Your task to perform on an android device: delete the emails in spam in the gmail app Image 0: 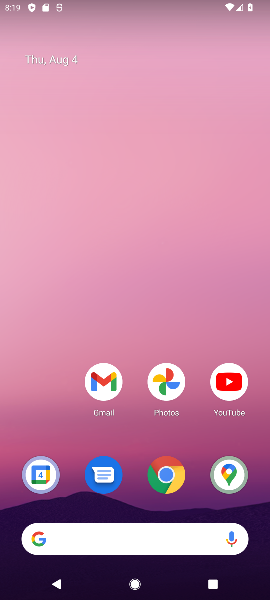
Step 0: drag from (173, 503) to (247, 88)
Your task to perform on an android device: delete the emails in spam in the gmail app Image 1: 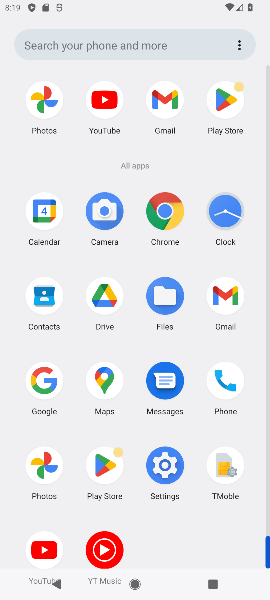
Step 1: drag from (141, 471) to (199, 119)
Your task to perform on an android device: delete the emails in spam in the gmail app Image 2: 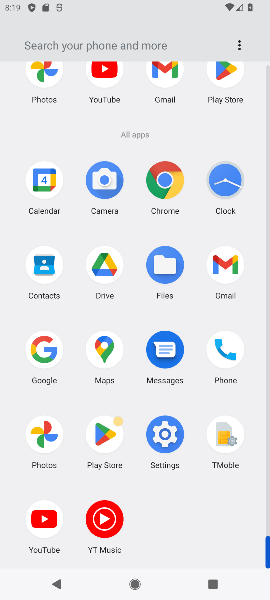
Step 2: click (223, 258)
Your task to perform on an android device: delete the emails in spam in the gmail app Image 3: 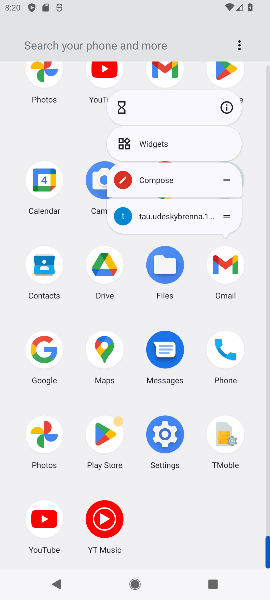
Step 3: click (227, 103)
Your task to perform on an android device: delete the emails in spam in the gmail app Image 4: 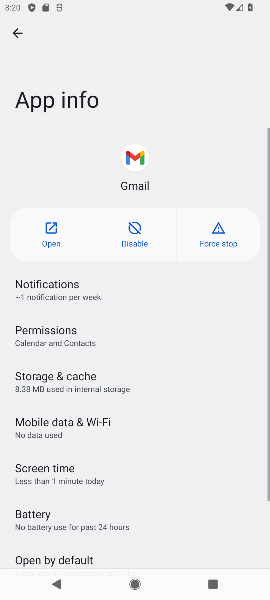
Step 4: click (49, 229)
Your task to perform on an android device: delete the emails in spam in the gmail app Image 5: 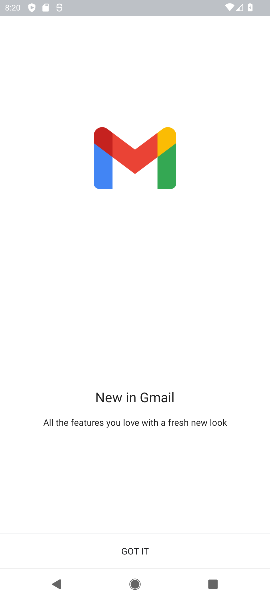
Step 5: click (143, 555)
Your task to perform on an android device: delete the emails in spam in the gmail app Image 6: 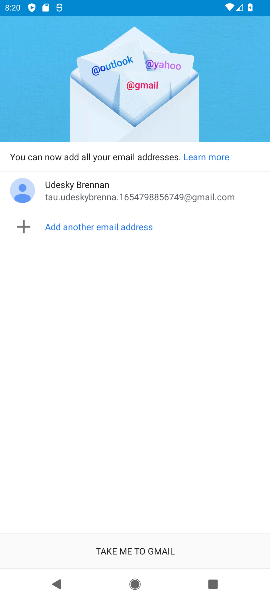
Step 6: click (141, 554)
Your task to perform on an android device: delete the emails in spam in the gmail app Image 7: 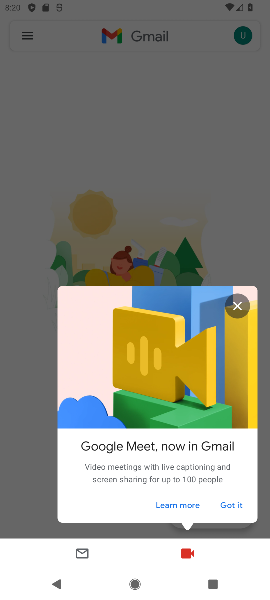
Step 7: drag from (121, 509) to (162, 220)
Your task to perform on an android device: delete the emails in spam in the gmail app Image 8: 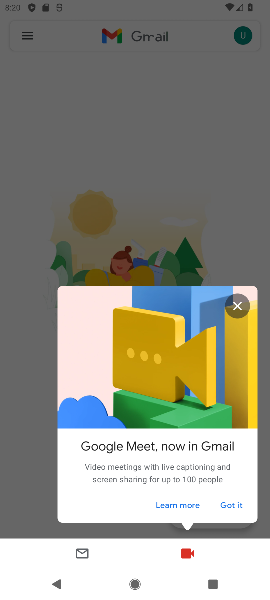
Step 8: click (233, 505)
Your task to perform on an android device: delete the emails in spam in the gmail app Image 9: 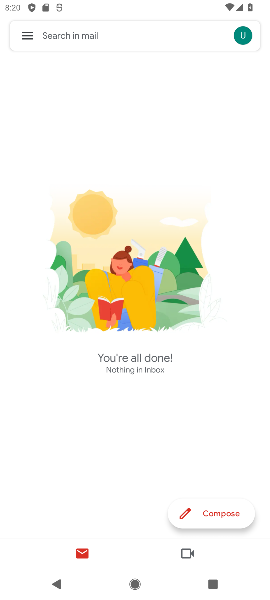
Step 9: drag from (101, 435) to (157, 246)
Your task to perform on an android device: delete the emails in spam in the gmail app Image 10: 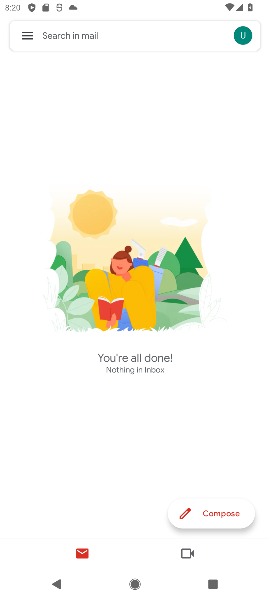
Step 10: click (21, 35)
Your task to perform on an android device: delete the emails in spam in the gmail app Image 11: 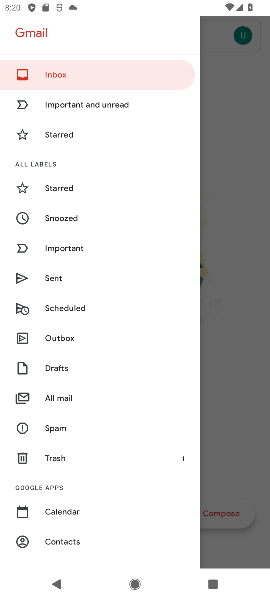
Step 11: click (81, 58)
Your task to perform on an android device: delete the emails in spam in the gmail app Image 12: 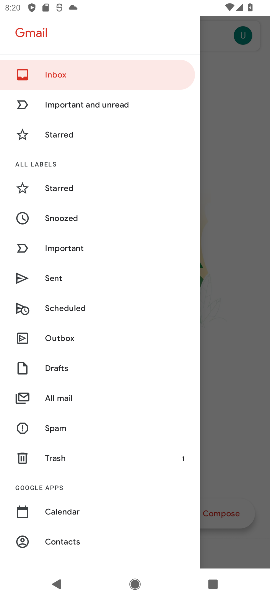
Step 12: click (60, 67)
Your task to perform on an android device: delete the emails in spam in the gmail app Image 13: 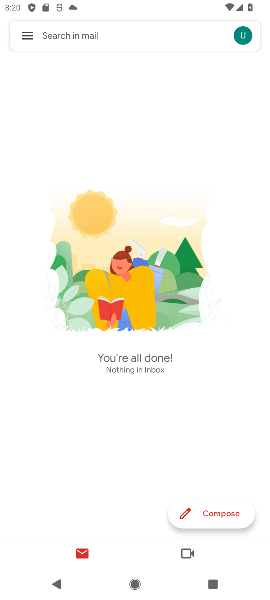
Step 13: click (234, 200)
Your task to perform on an android device: delete the emails in spam in the gmail app Image 14: 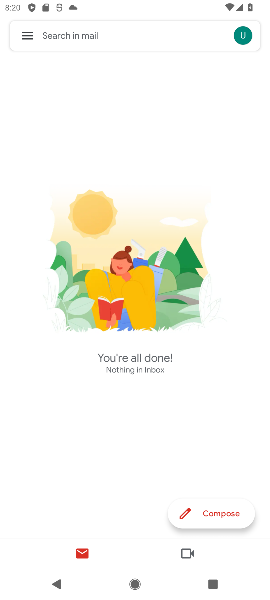
Step 14: drag from (167, 368) to (168, 227)
Your task to perform on an android device: delete the emails in spam in the gmail app Image 15: 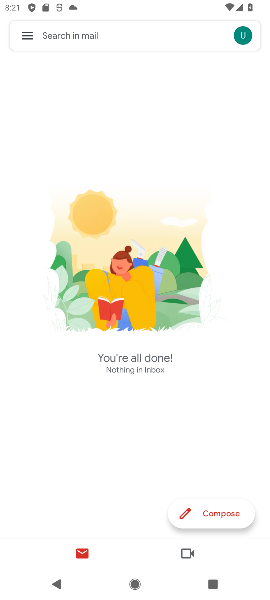
Step 15: click (35, 34)
Your task to perform on an android device: delete the emails in spam in the gmail app Image 16: 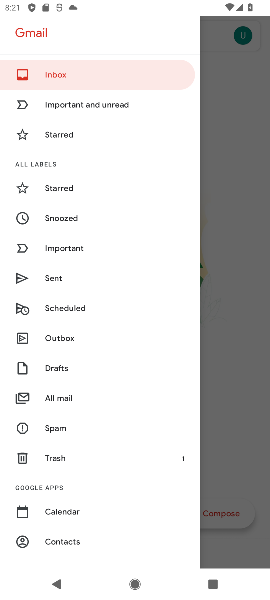
Step 16: click (68, 421)
Your task to perform on an android device: delete the emails in spam in the gmail app Image 17: 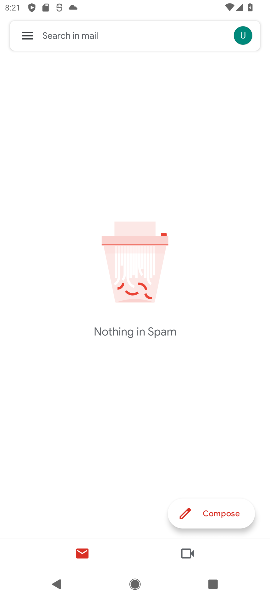
Step 17: drag from (132, 473) to (135, 292)
Your task to perform on an android device: delete the emails in spam in the gmail app Image 18: 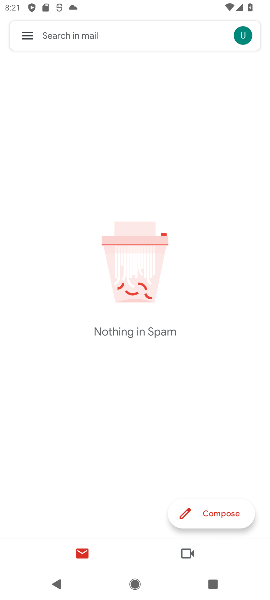
Step 18: click (20, 37)
Your task to perform on an android device: delete the emails in spam in the gmail app Image 19: 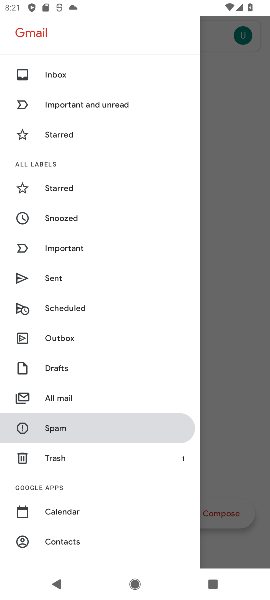
Step 19: click (42, 428)
Your task to perform on an android device: delete the emails in spam in the gmail app Image 20: 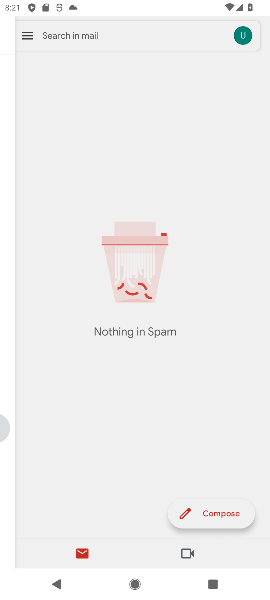
Step 20: click (247, 368)
Your task to perform on an android device: delete the emails in spam in the gmail app Image 21: 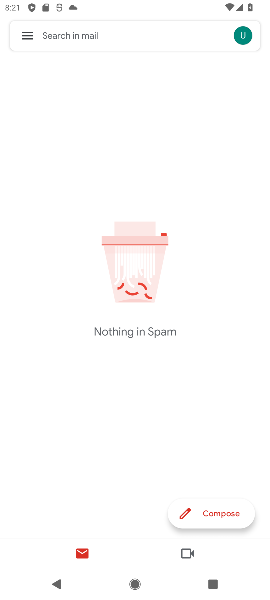
Step 21: task complete